Your task to perform on an android device: empty trash in the gmail app Image 0: 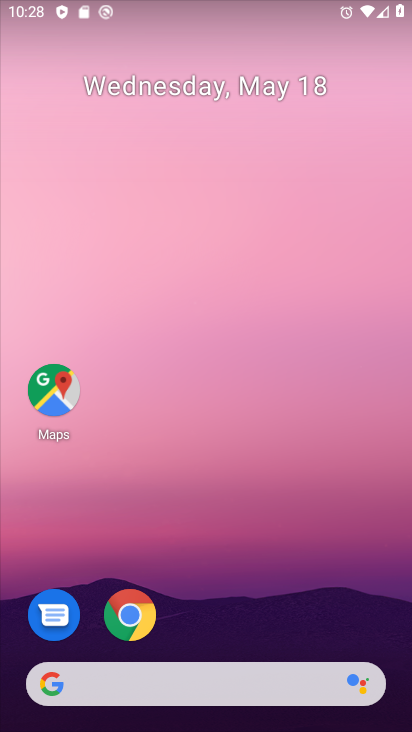
Step 0: drag from (243, 665) to (245, 209)
Your task to perform on an android device: empty trash in the gmail app Image 1: 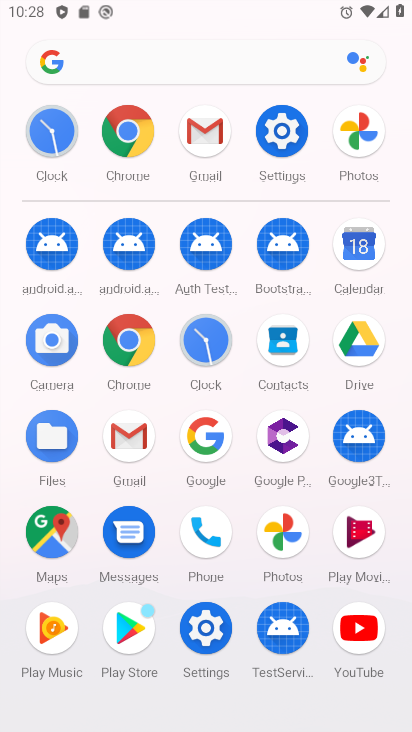
Step 1: click (206, 139)
Your task to perform on an android device: empty trash in the gmail app Image 2: 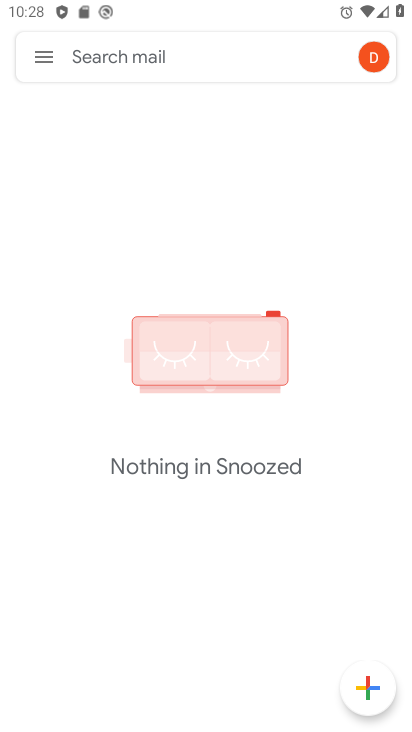
Step 2: click (43, 62)
Your task to perform on an android device: empty trash in the gmail app Image 3: 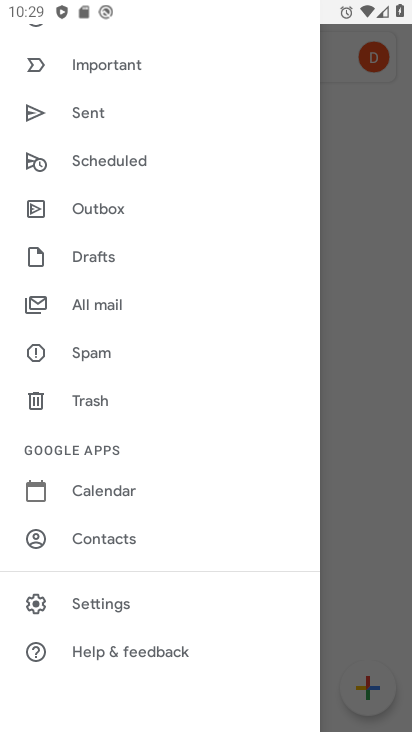
Step 3: click (88, 398)
Your task to perform on an android device: empty trash in the gmail app Image 4: 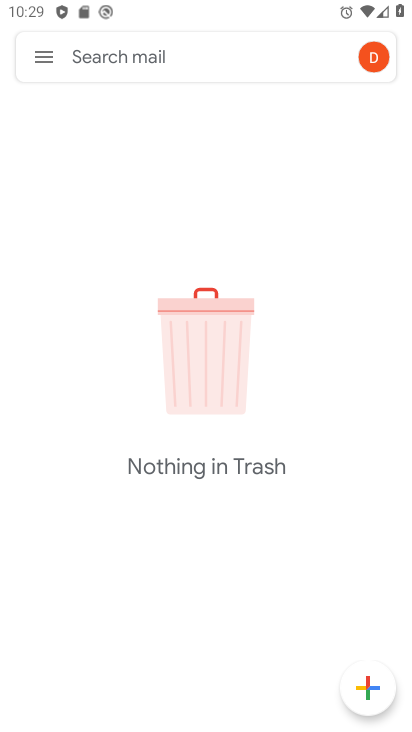
Step 4: task complete